Your task to perform on an android device: Set the phone to "Do not disturb". Image 0: 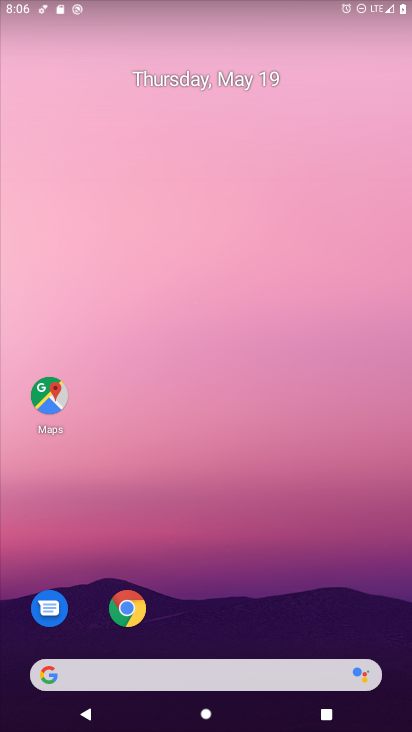
Step 0: click (328, 330)
Your task to perform on an android device: Set the phone to "Do not disturb". Image 1: 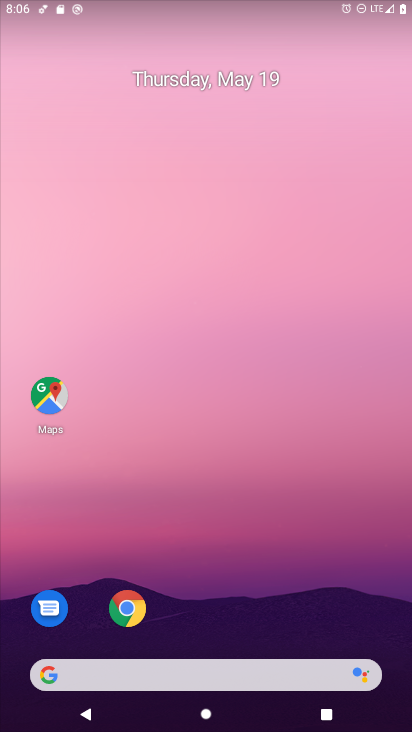
Step 1: click (399, 658)
Your task to perform on an android device: Set the phone to "Do not disturb". Image 2: 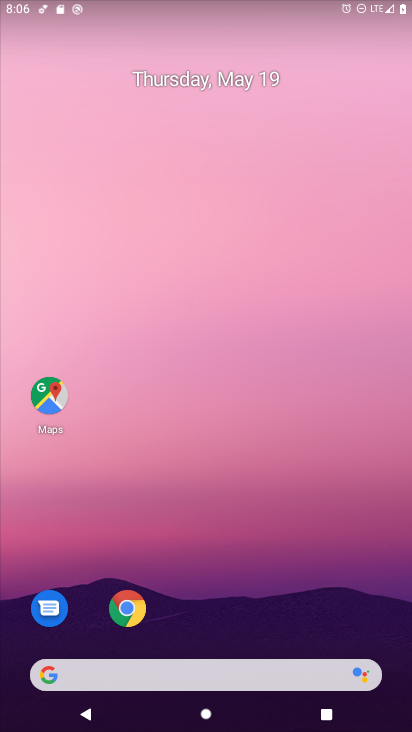
Step 2: drag from (399, 658) to (376, 389)
Your task to perform on an android device: Set the phone to "Do not disturb". Image 3: 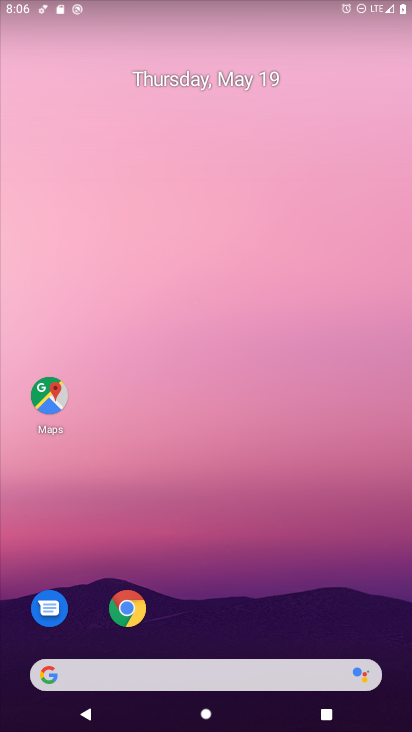
Step 3: drag from (401, 715) to (228, 7)
Your task to perform on an android device: Set the phone to "Do not disturb". Image 4: 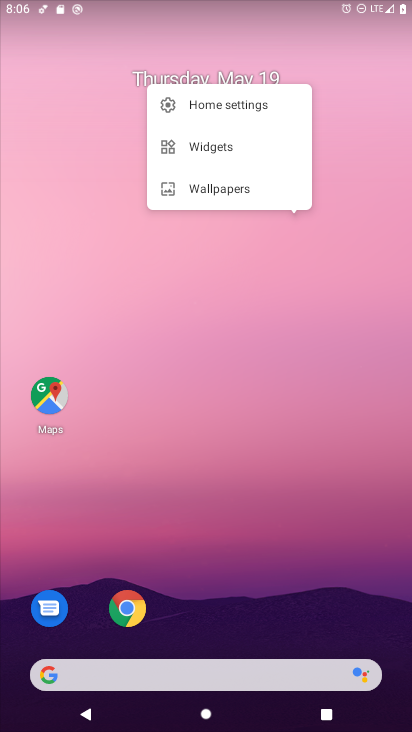
Step 4: click (235, 481)
Your task to perform on an android device: Set the phone to "Do not disturb". Image 5: 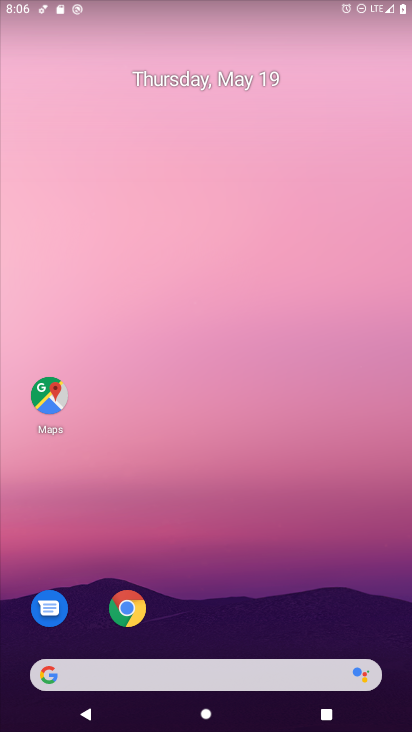
Step 5: drag from (387, 688) to (304, 272)
Your task to perform on an android device: Set the phone to "Do not disturb". Image 6: 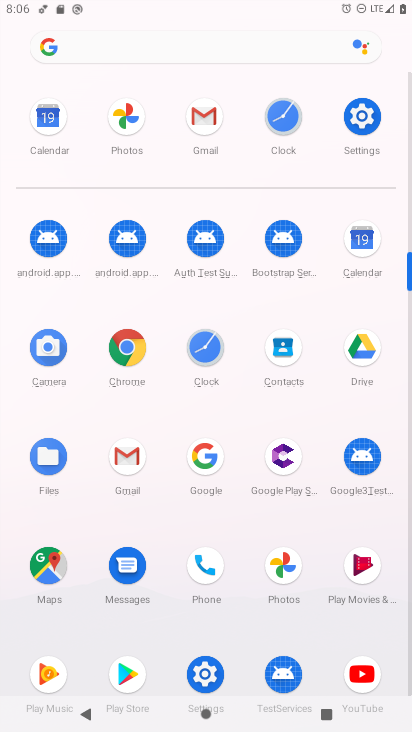
Step 6: click (367, 113)
Your task to perform on an android device: Set the phone to "Do not disturb". Image 7: 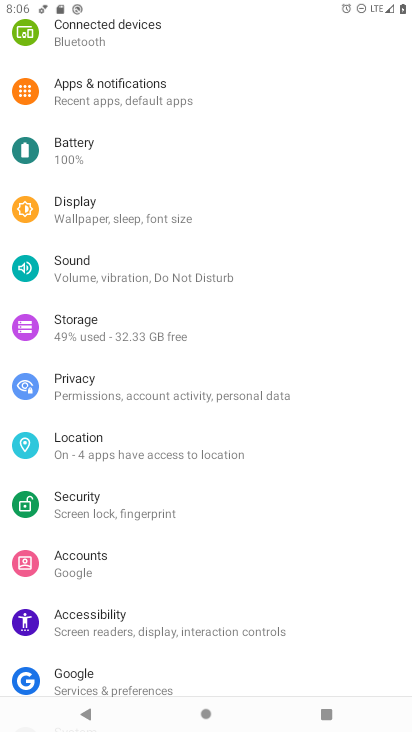
Step 7: click (88, 275)
Your task to perform on an android device: Set the phone to "Do not disturb". Image 8: 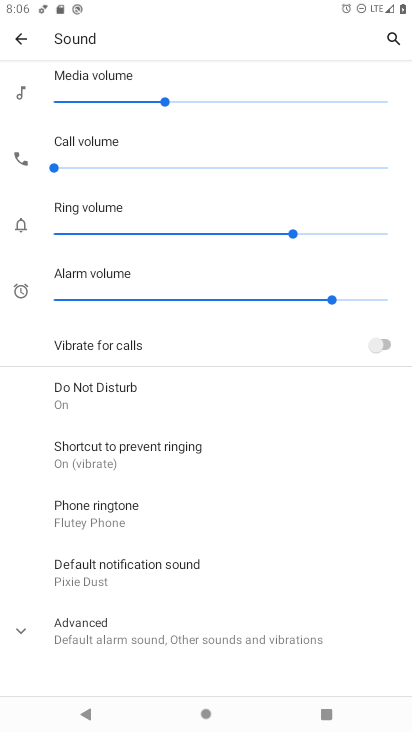
Step 8: task complete